Your task to perform on an android device: Find coffee shops on Maps Image 0: 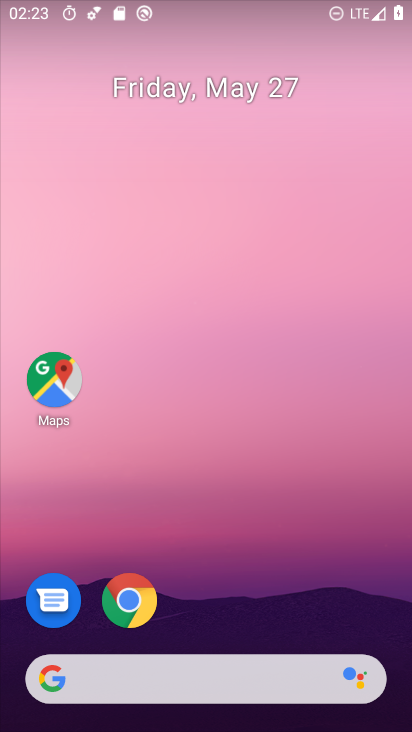
Step 0: click (71, 369)
Your task to perform on an android device: Find coffee shops on Maps Image 1: 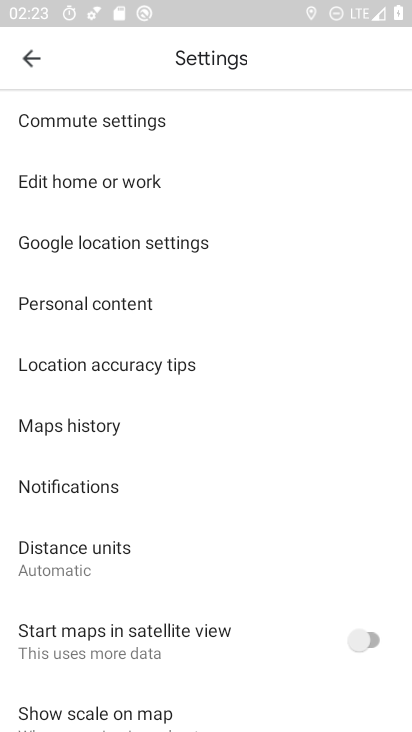
Step 1: click (31, 54)
Your task to perform on an android device: Find coffee shops on Maps Image 2: 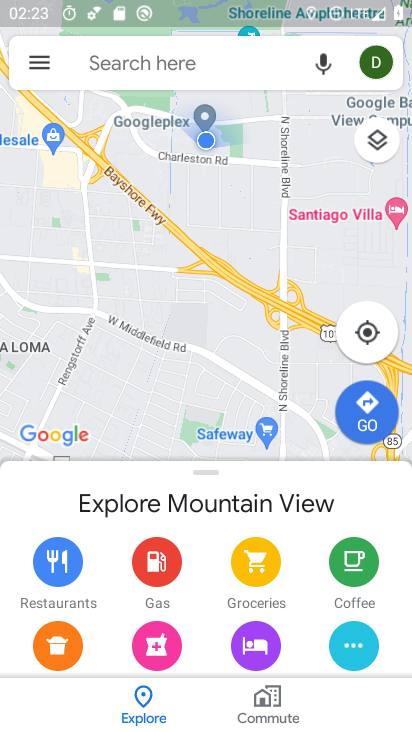
Step 2: click (146, 57)
Your task to perform on an android device: Find coffee shops on Maps Image 3: 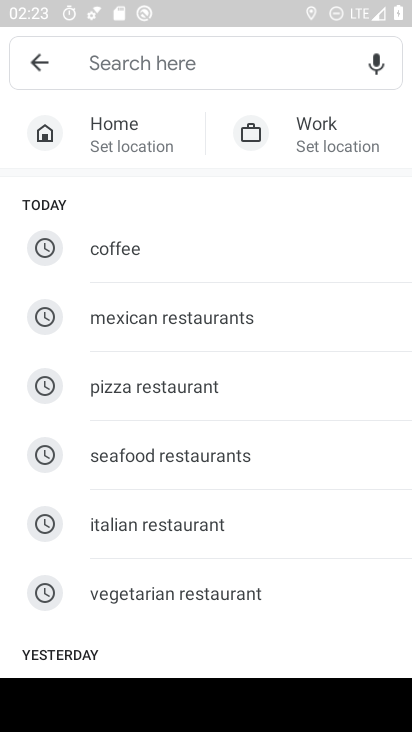
Step 3: type "coffee  shops"
Your task to perform on an android device: Find coffee shops on Maps Image 4: 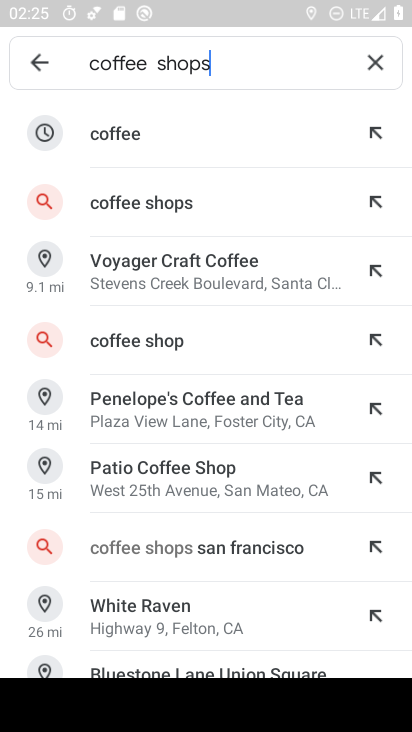
Step 4: click (190, 205)
Your task to perform on an android device: Find coffee shops on Maps Image 5: 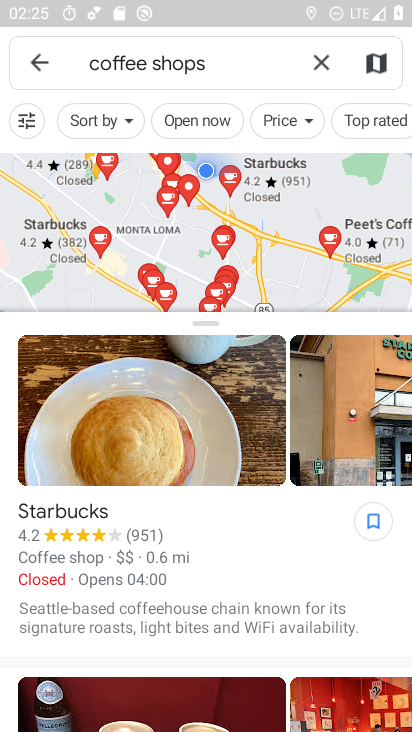
Step 5: task complete